Your task to perform on an android device: change your default location settings in chrome Image 0: 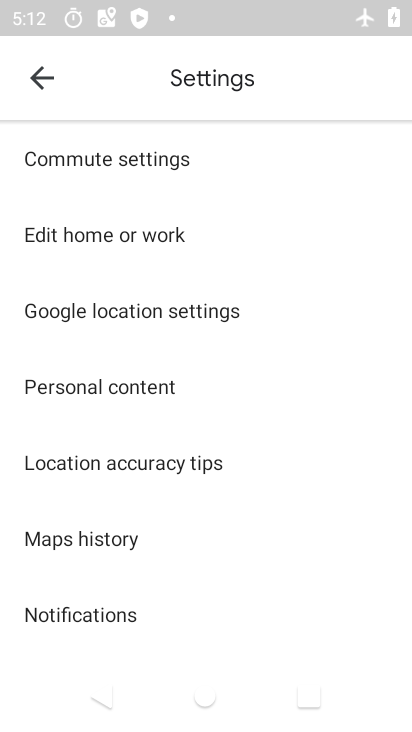
Step 0: press home button
Your task to perform on an android device: change your default location settings in chrome Image 1: 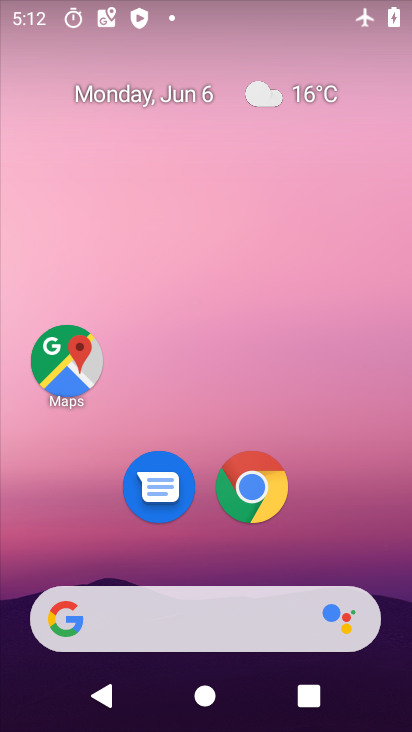
Step 1: click (244, 488)
Your task to perform on an android device: change your default location settings in chrome Image 2: 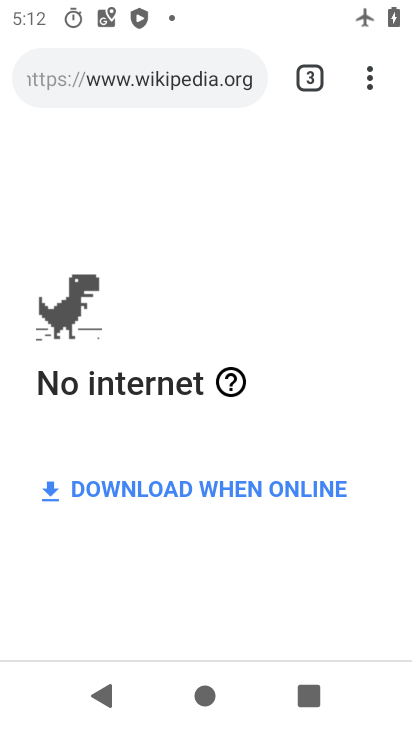
Step 2: drag from (378, 82) to (191, 547)
Your task to perform on an android device: change your default location settings in chrome Image 3: 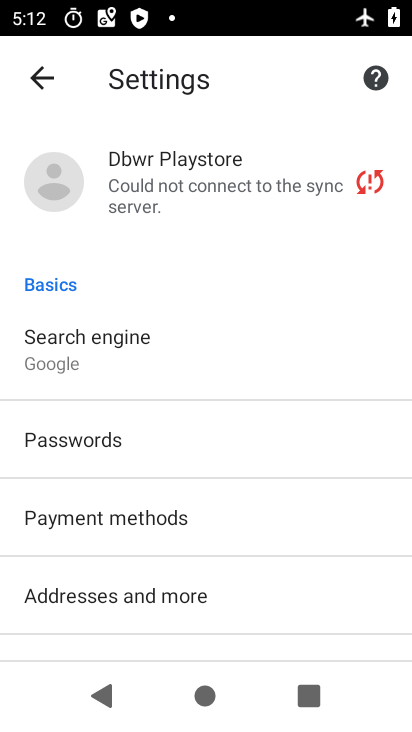
Step 3: drag from (259, 594) to (291, 118)
Your task to perform on an android device: change your default location settings in chrome Image 4: 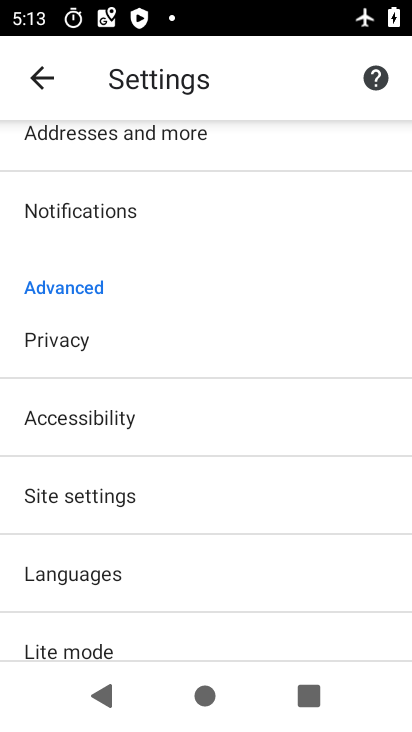
Step 4: click (119, 486)
Your task to perform on an android device: change your default location settings in chrome Image 5: 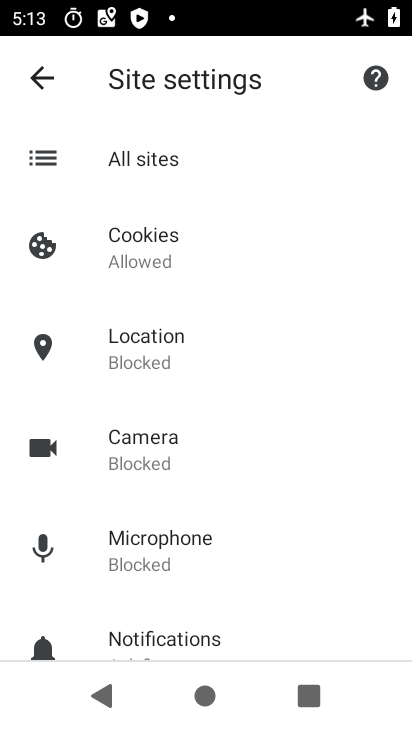
Step 5: drag from (251, 487) to (340, 107)
Your task to perform on an android device: change your default location settings in chrome Image 6: 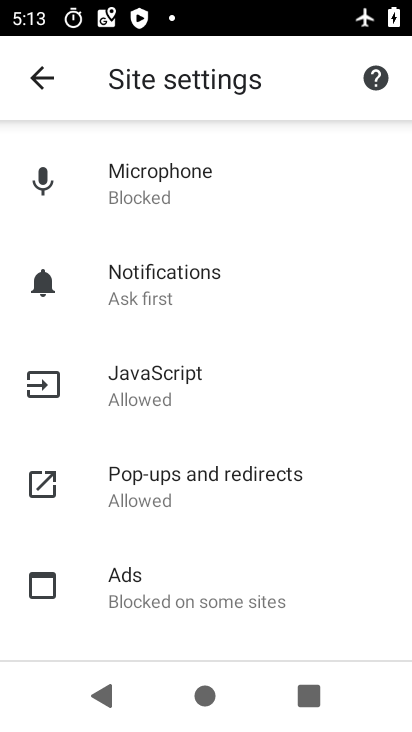
Step 6: drag from (243, 490) to (225, 725)
Your task to perform on an android device: change your default location settings in chrome Image 7: 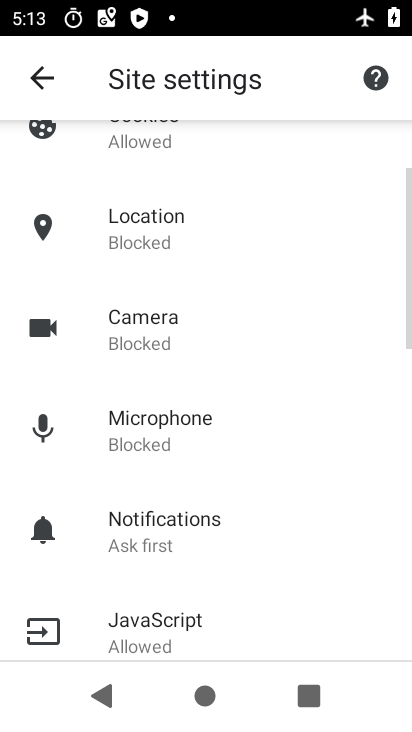
Step 7: drag from (279, 305) to (235, 609)
Your task to perform on an android device: change your default location settings in chrome Image 8: 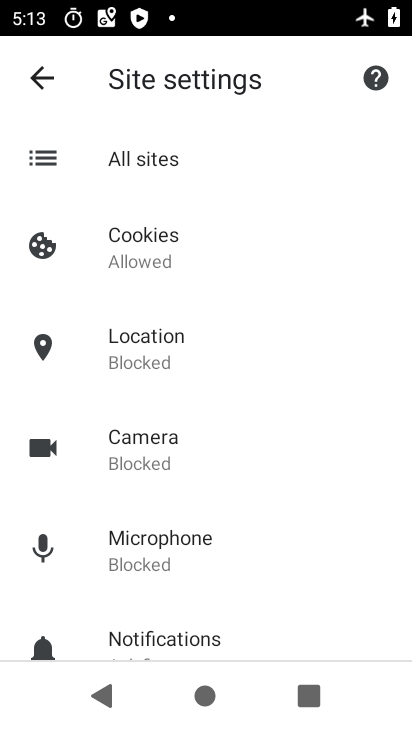
Step 8: click (176, 337)
Your task to perform on an android device: change your default location settings in chrome Image 9: 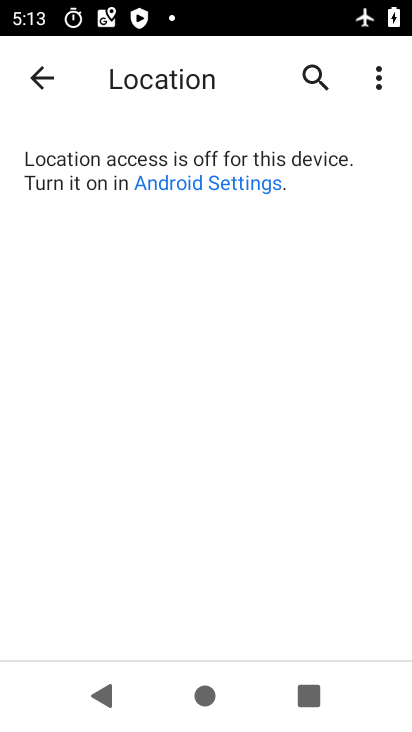
Step 9: press home button
Your task to perform on an android device: change your default location settings in chrome Image 10: 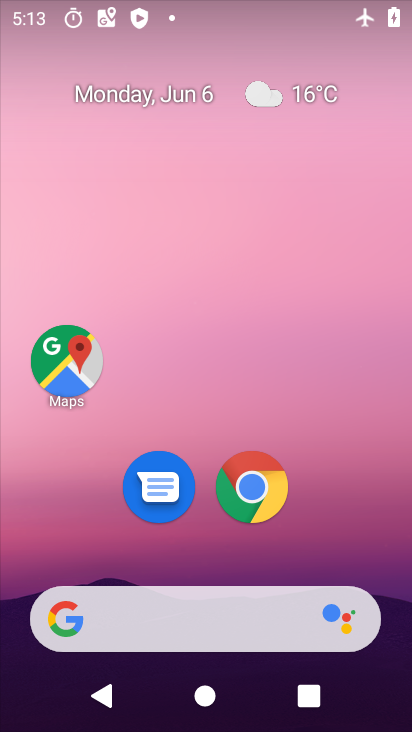
Step 10: click (252, 484)
Your task to perform on an android device: change your default location settings in chrome Image 11: 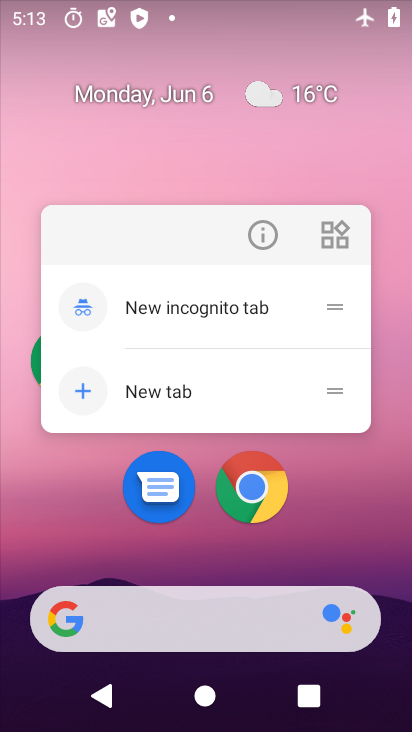
Step 11: click (311, 521)
Your task to perform on an android device: change your default location settings in chrome Image 12: 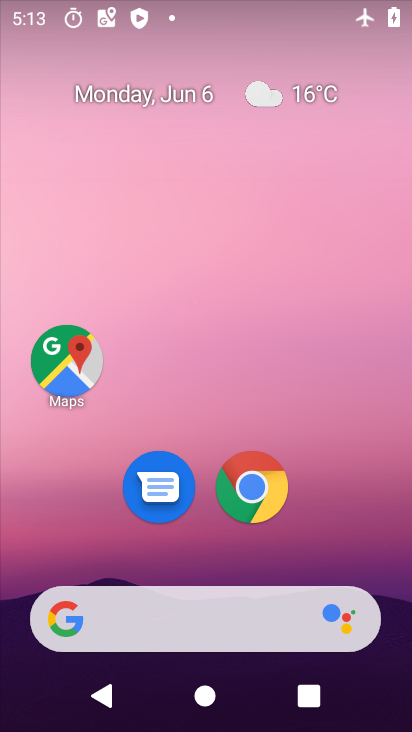
Step 12: drag from (331, 484) to (331, 56)
Your task to perform on an android device: change your default location settings in chrome Image 13: 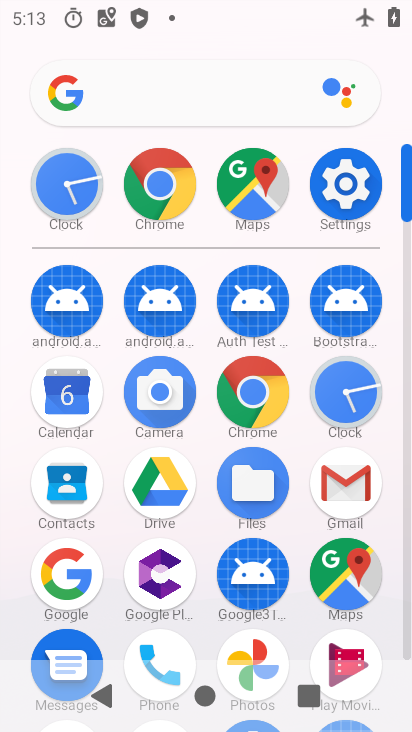
Step 13: click (258, 390)
Your task to perform on an android device: change your default location settings in chrome Image 14: 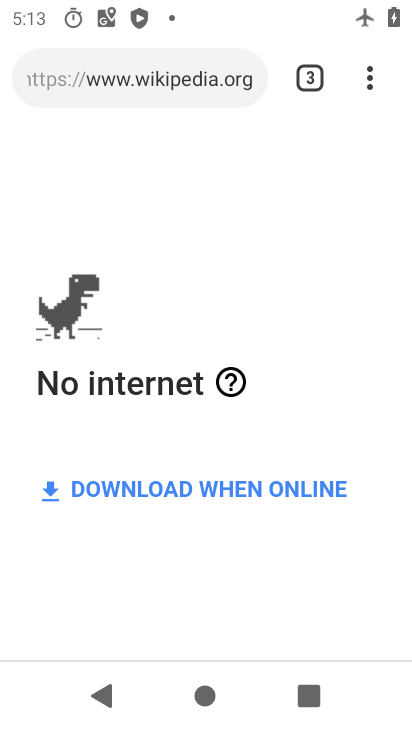
Step 14: drag from (381, 69) to (264, 547)
Your task to perform on an android device: change your default location settings in chrome Image 15: 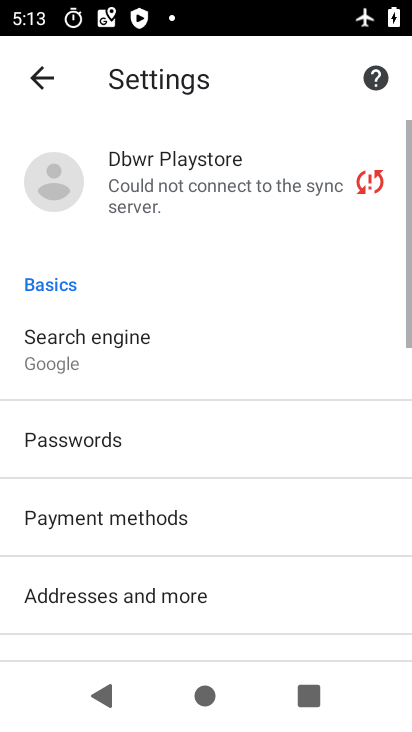
Step 15: drag from (200, 587) to (207, 125)
Your task to perform on an android device: change your default location settings in chrome Image 16: 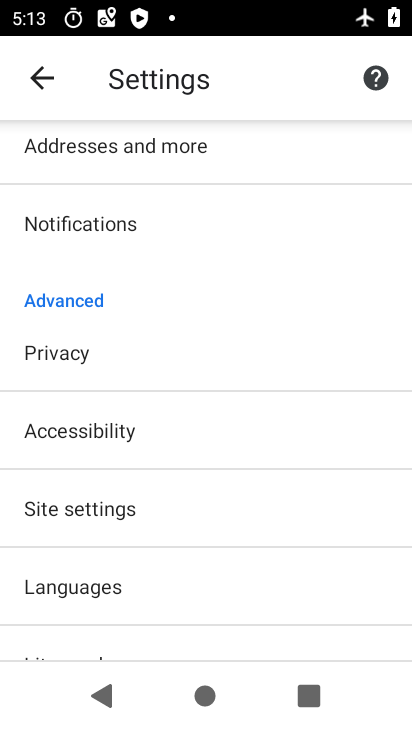
Step 16: click (95, 488)
Your task to perform on an android device: change your default location settings in chrome Image 17: 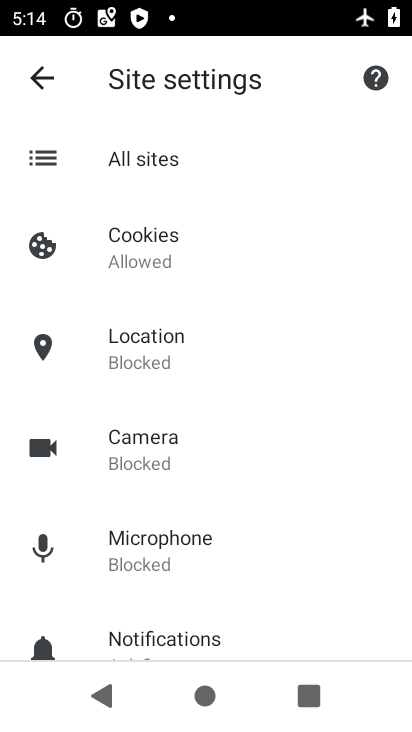
Step 17: click (141, 344)
Your task to perform on an android device: change your default location settings in chrome Image 18: 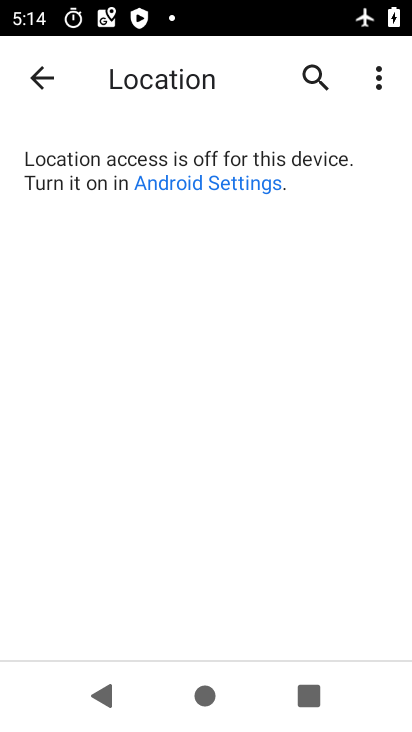
Step 18: task complete